Your task to perform on an android device: Go to Maps Image 0: 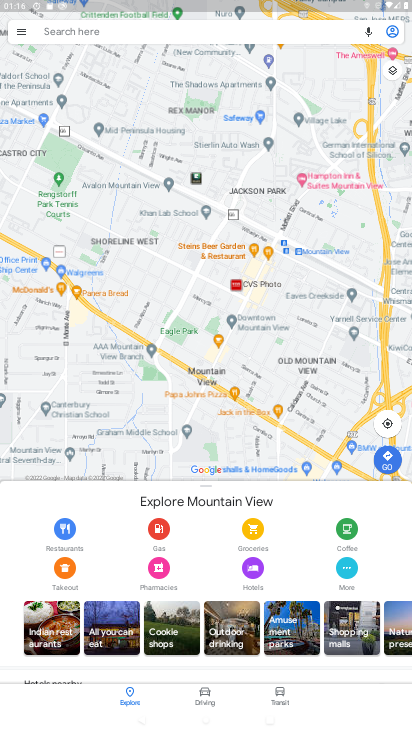
Step 0: press home button
Your task to perform on an android device: Go to Maps Image 1: 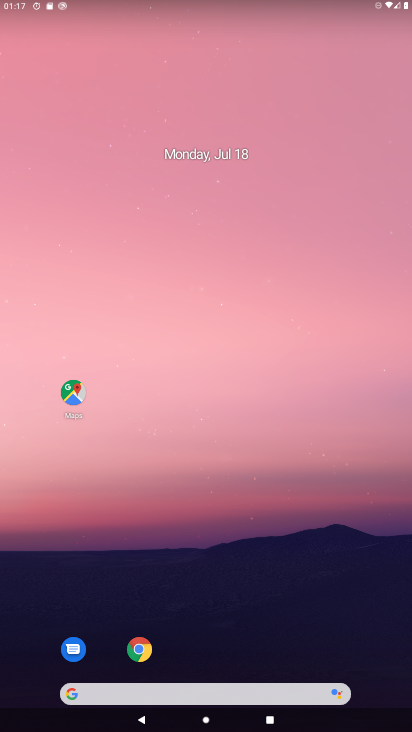
Step 1: click (78, 392)
Your task to perform on an android device: Go to Maps Image 2: 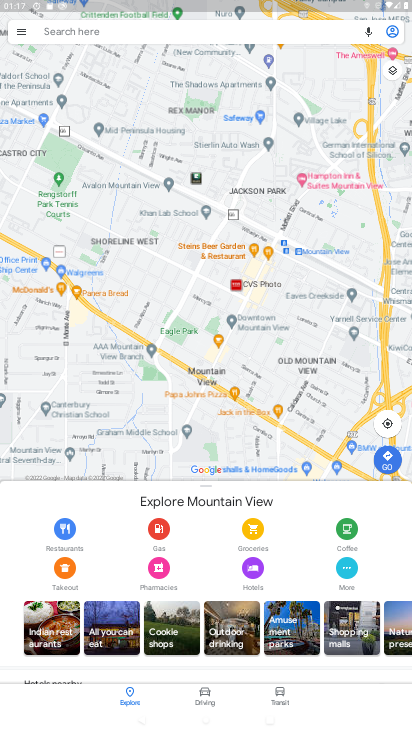
Step 2: task complete